Your task to perform on an android device: Search for Italian restaurants on Maps Image 0: 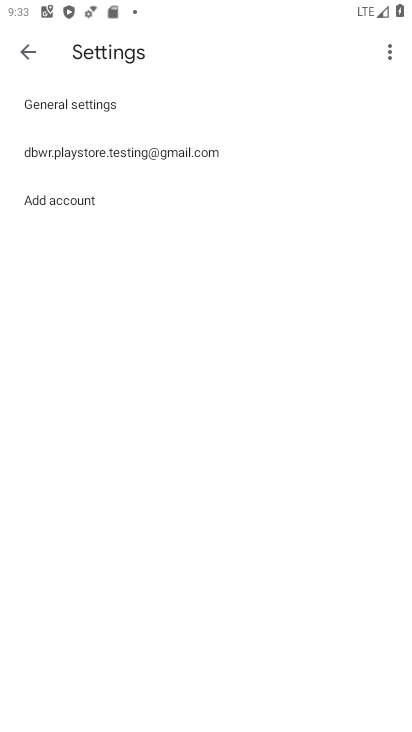
Step 0: press home button
Your task to perform on an android device: Search for Italian restaurants on Maps Image 1: 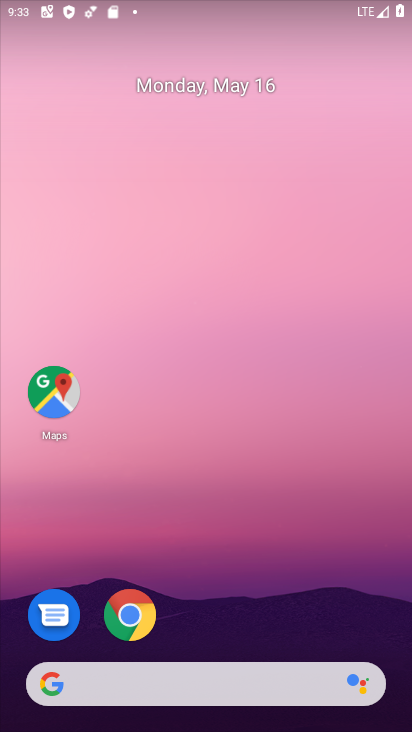
Step 1: drag from (236, 549) to (289, 241)
Your task to perform on an android device: Search for Italian restaurants on Maps Image 2: 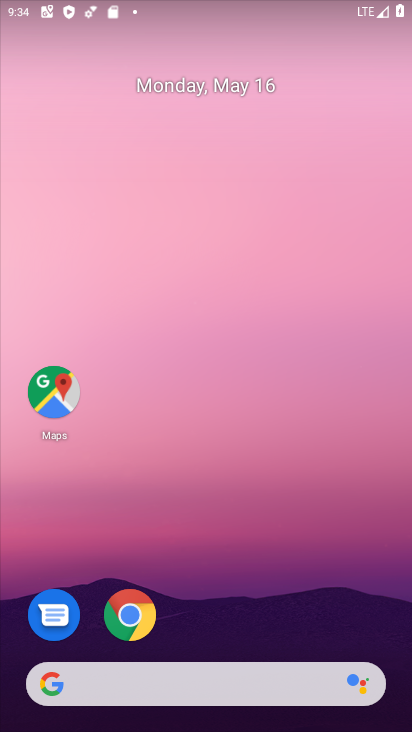
Step 2: click (53, 402)
Your task to perform on an android device: Search for Italian restaurants on Maps Image 3: 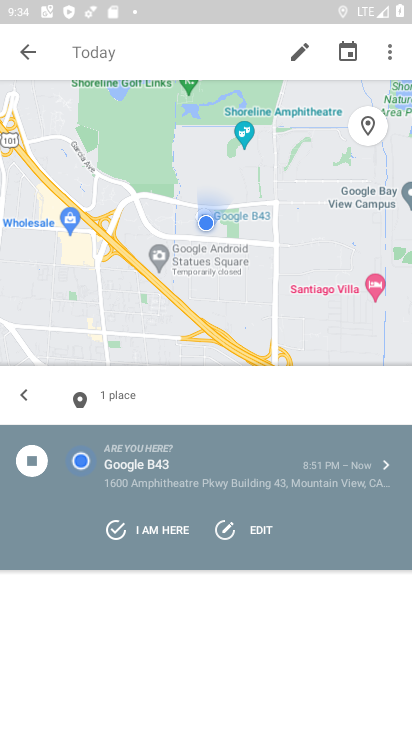
Step 3: click (27, 55)
Your task to perform on an android device: Search for Italian restaurants on Maps Image 4: 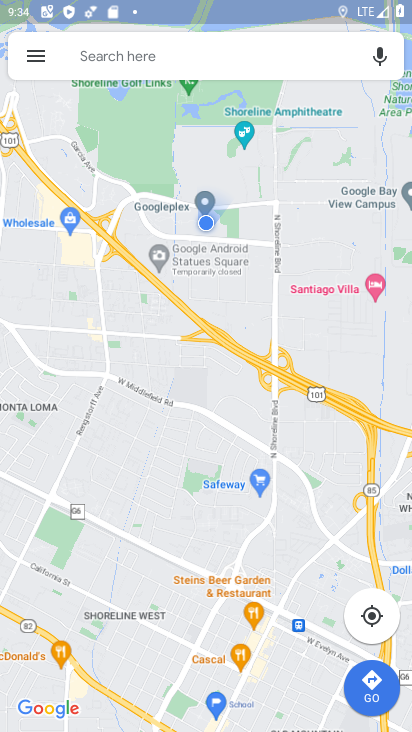
Step 4: click (207, 57)
Your task to perform on an android device: Search for Italian restaurants on Maps Image 5: 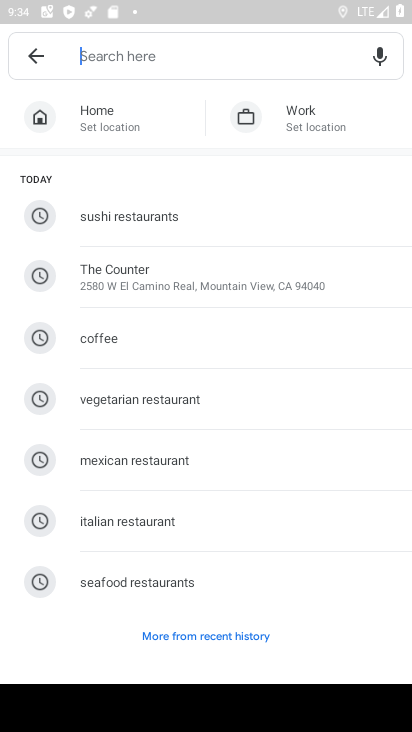
Step 5: click (169, 521)
Your task to perform on an android device: Search for Italian restaurants on Maps Image 6: 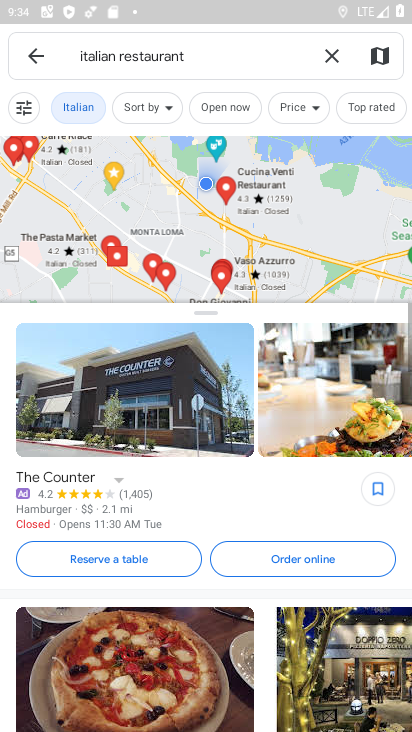
Step 6: task complete